Your task to perform on an android device: Do I have any events this weekend? Image 0: 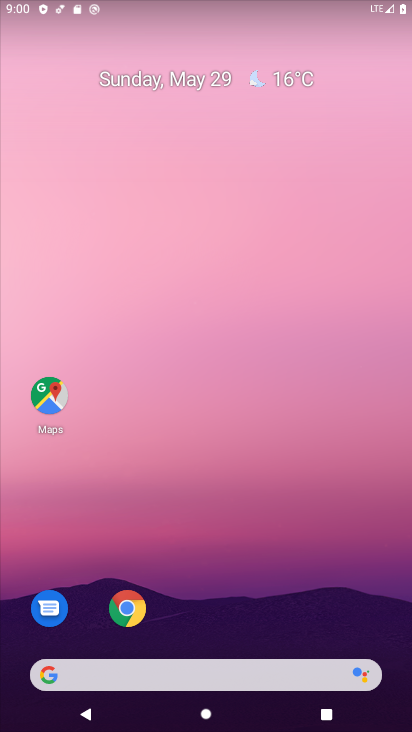
Step 0: drag from (198, 609) to (257, 0)
Your task to perform on an android device: Do I have any events this weekend? Image 1: 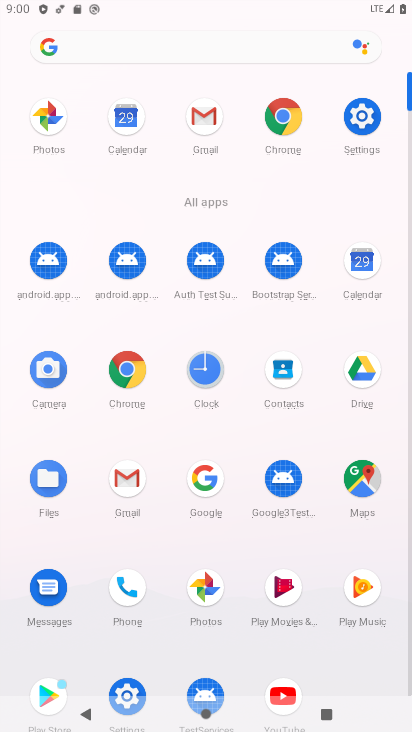
Step 1: click (373, 282)
Your task to perform on an android device: Do I have any events this weekend? Image 2: 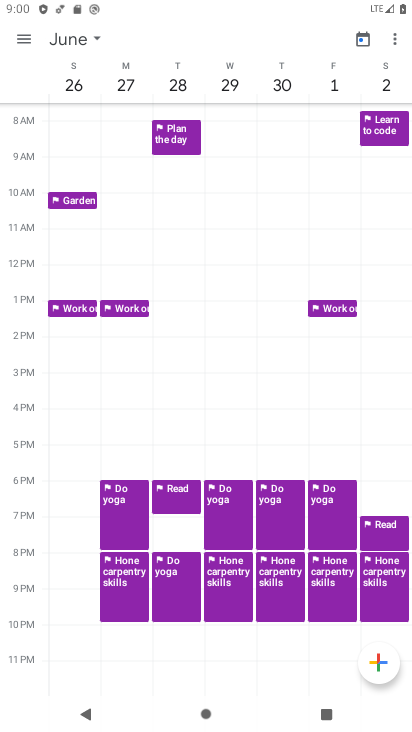
Step 2: click (77, 31)
Your task to perform on an android device: Do I have any events this weekend? Image 3: 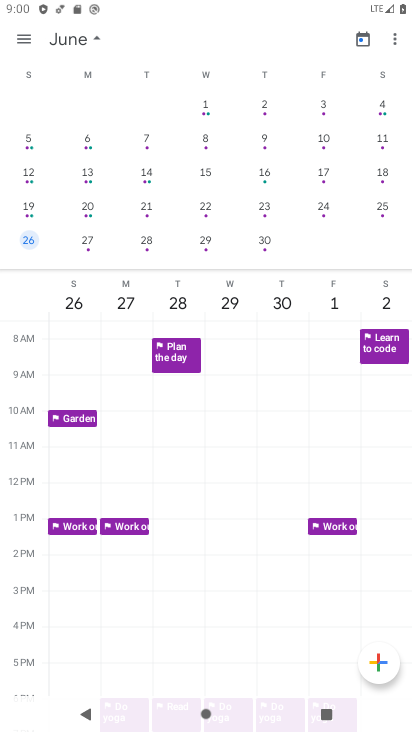
Step 3: drag from (82, 180) to (340, 213)
Your task to perform on an android device: Do I have any events this weekend? Image 4: 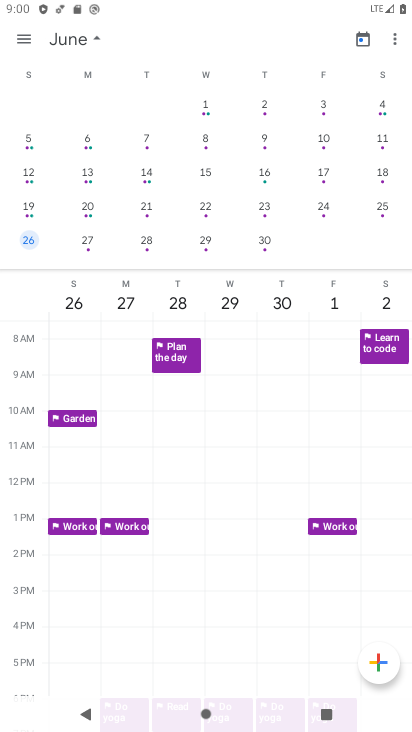
Step 4: drag from (32, 169) to (405, 206)
Your task to perform on an android device: Do I have any events this weekend? Image 5: 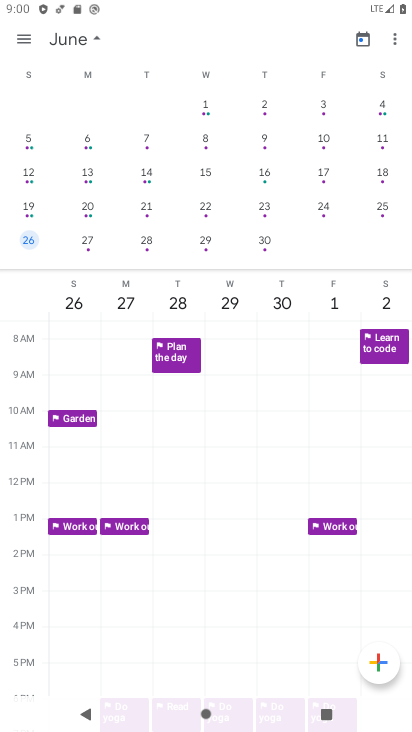
Step 5: click (17, 33)
Your task to perform on an android device: Do I have any events this weekend? Image 6: 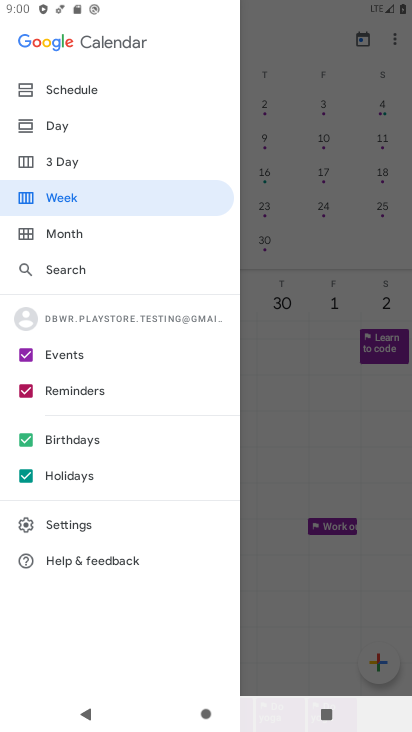
Step 6: click (59, 200)
Your task to perform on an android device: Do I have any events this weekend? Image 7: 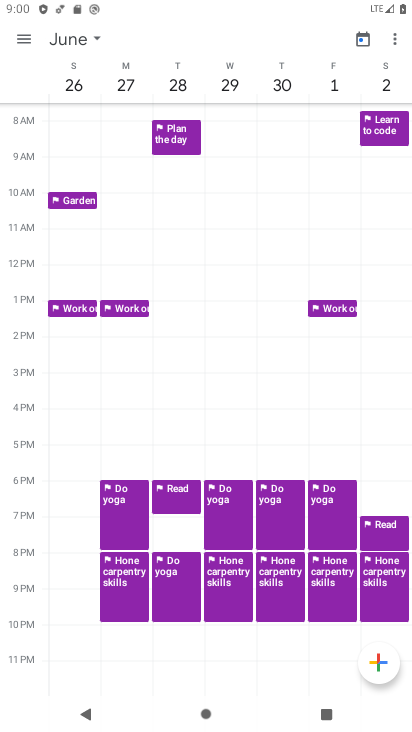
Step 7: click (72, 41)
Your task to perform on an android device: Do I have any events this weekend? Image 8: 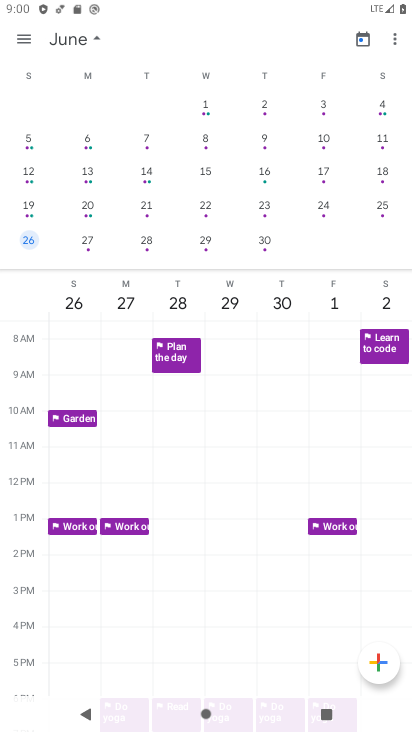
Step 8: task complete